Your task to perform on an android device: Open display settings Image 0: 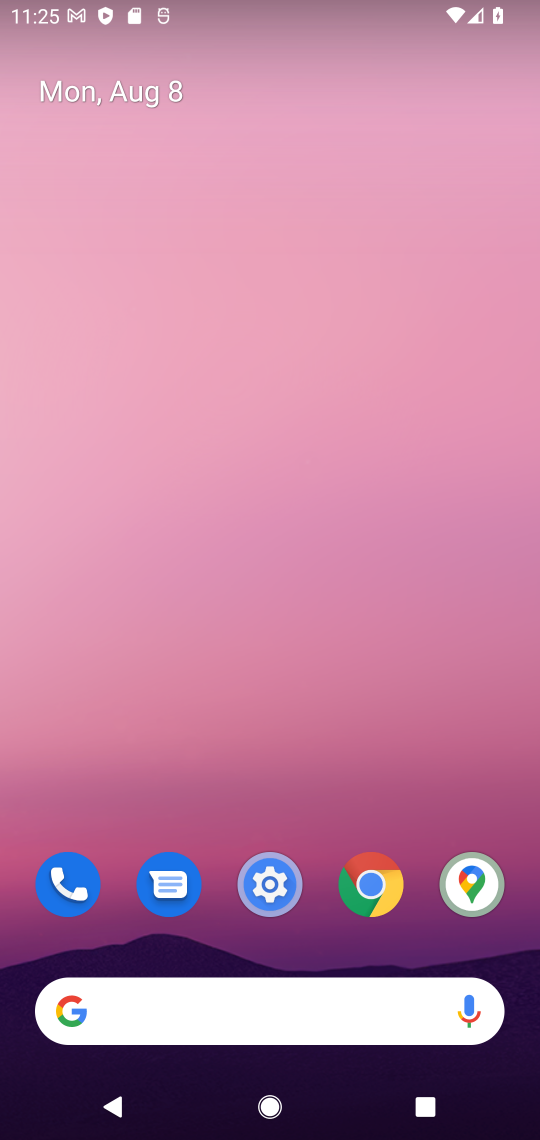
Step 0: drag from (266, 959) to (329, 216)
Your task to perform on an android device: Open display settings Image 1: 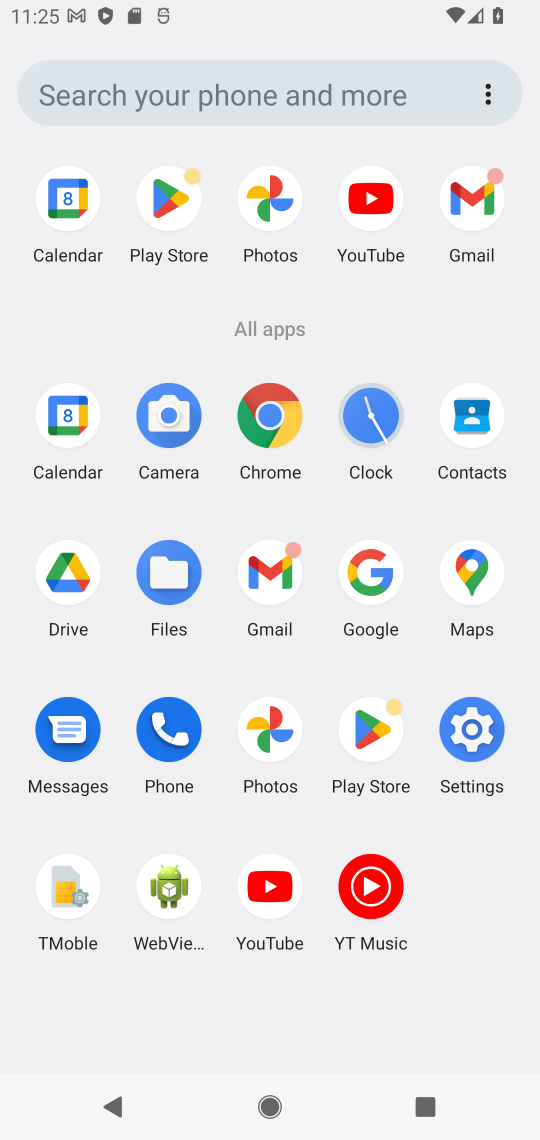
Step 1: click (480, 763)
Your task to perform on an android device: Open display settings Image 2: 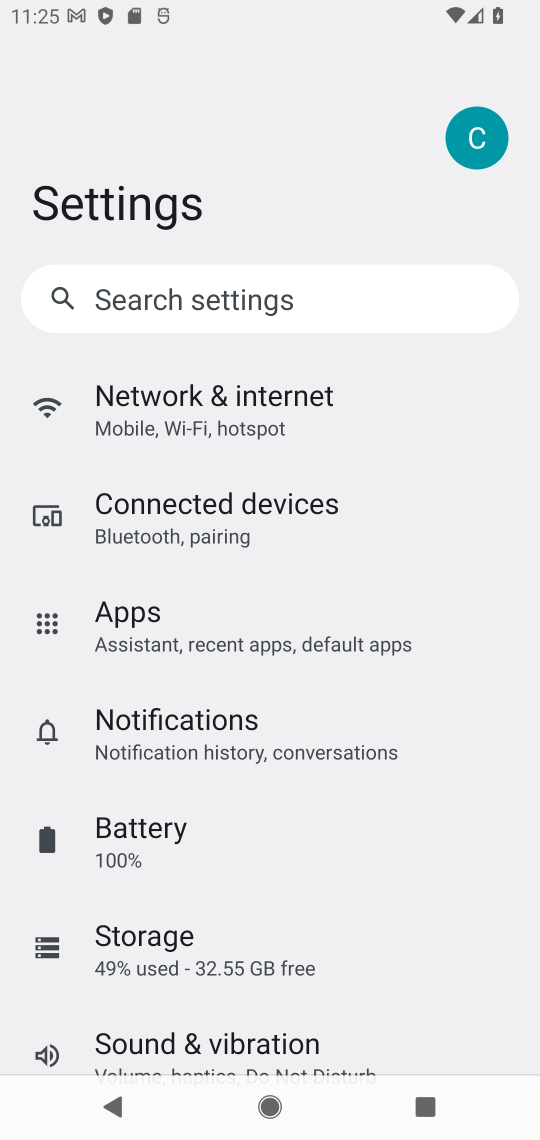
Step 2: drag from (235, 915) to (300, 288)
Your task to perform on an android device: Open display settings Image 3: 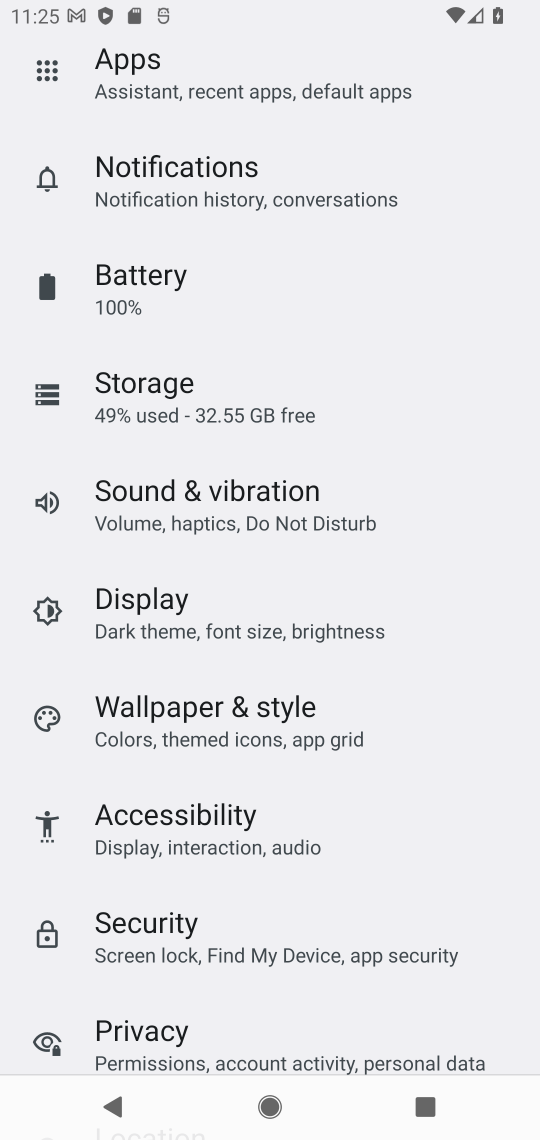
Step 3: click (207, 620)
Your task to perform on an android device: Open display settings Image 4: 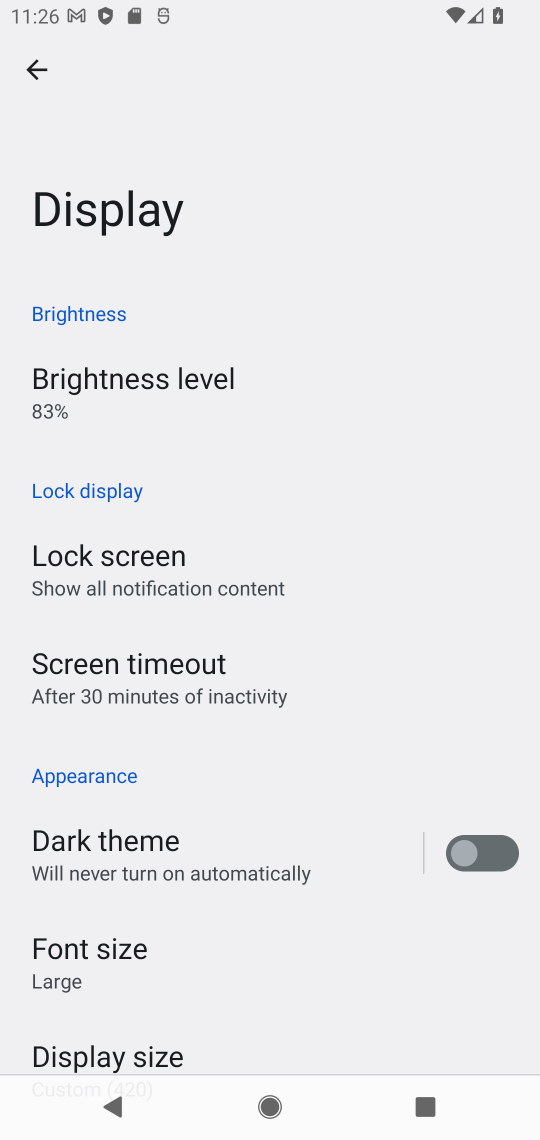
Step 4: task complete